Your task to perform on an android device: turn on sleep mode Image 0: 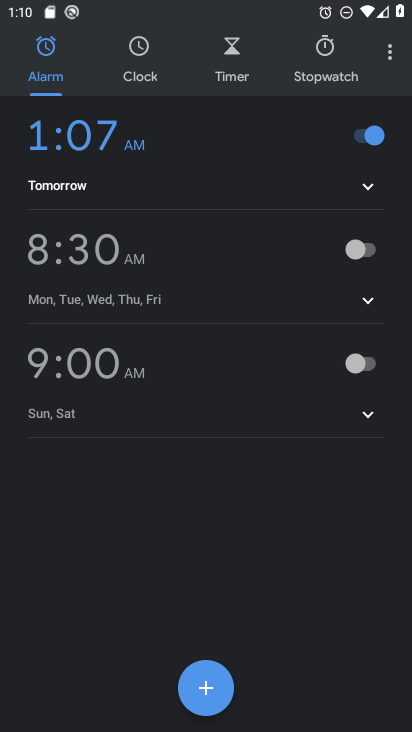
Step 0: press home button
Your task to perform on an android device: turn on sleep mode Image 1: 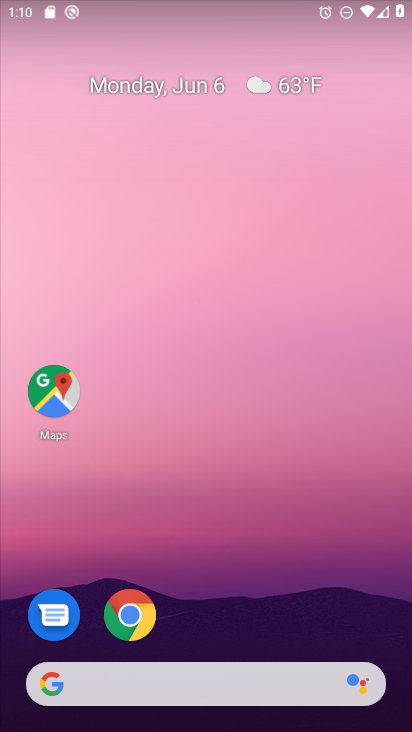
Step 1: drag from (206, 567) to (230, 50)
Your task to perform on an android device: turn on sleep mode Image 2: 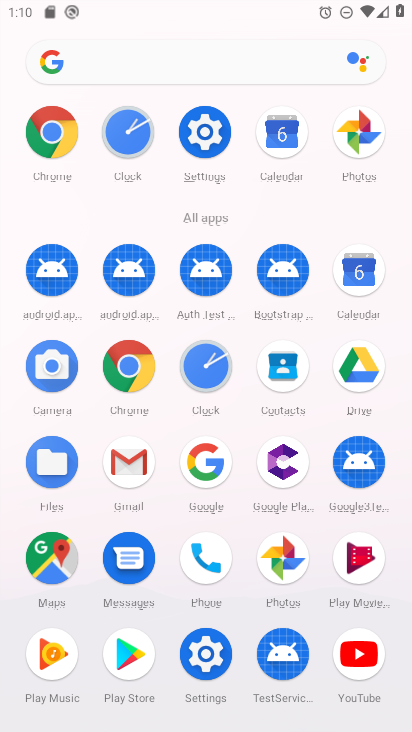
Step 2: click (214, 130)
Your task to perform on an android device: turn on sleep mode Image 3: 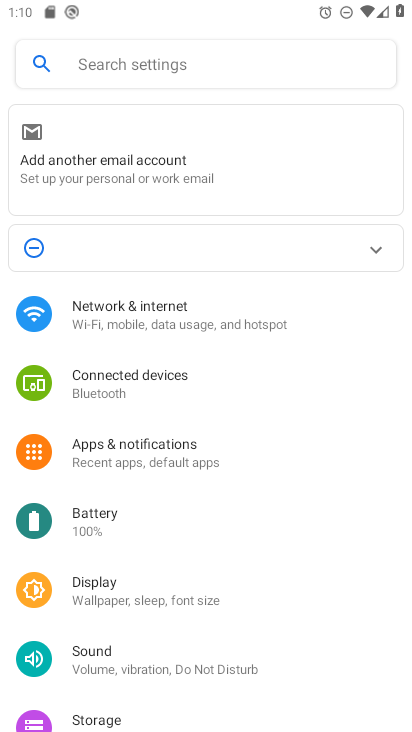
Step 3: task complete